Your task to perform on an android device: Do I have any events this weekend? Image 0: 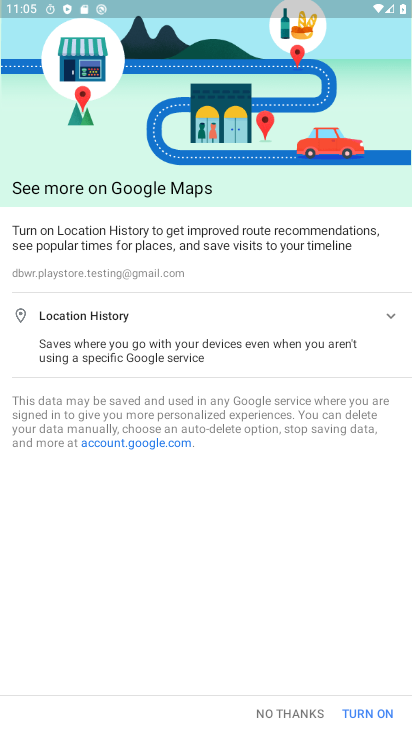
Step 0: press home button
Your task to perform on an android device: Do I have any events this weekend? Image 1: 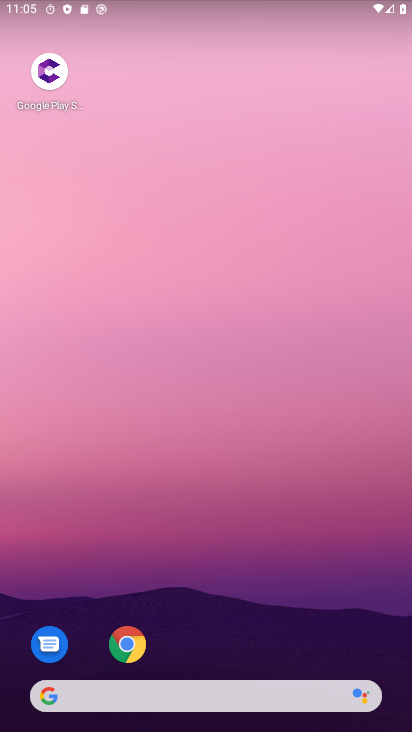
Step 1: drag from (91, 731) to (134, 77)
Your task to perform on an android device: Do I have any events this weekend? Image 2: 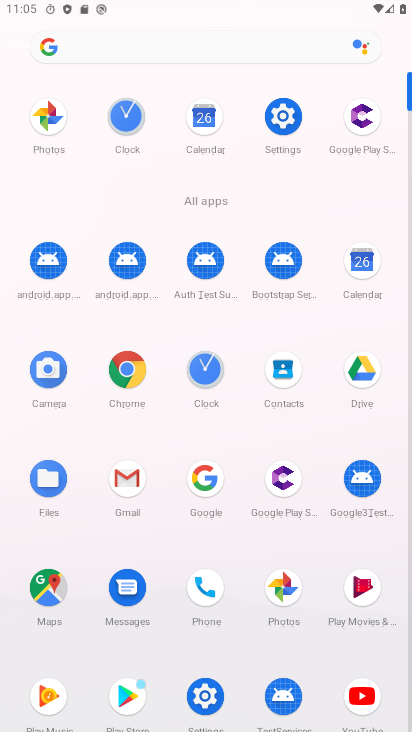
Step 2: click (202, 125)
Your task to perform on an android device: Do I have any events this weekend? Image 3: 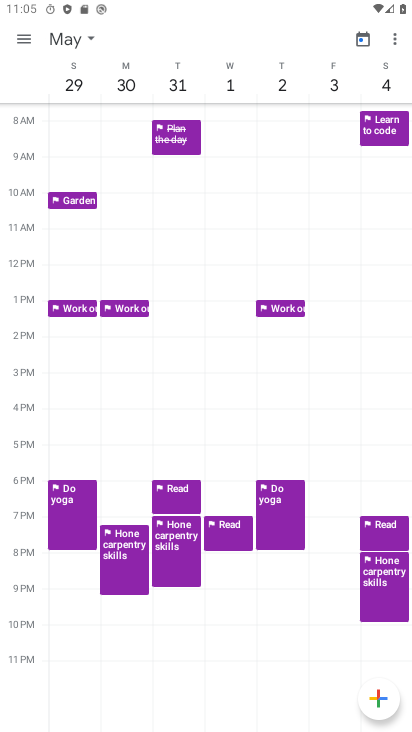
Step 3: drag from (94, 78) to (399, 88)
Your task to perform on an android device: Do I have any events this weekend? Image 4: 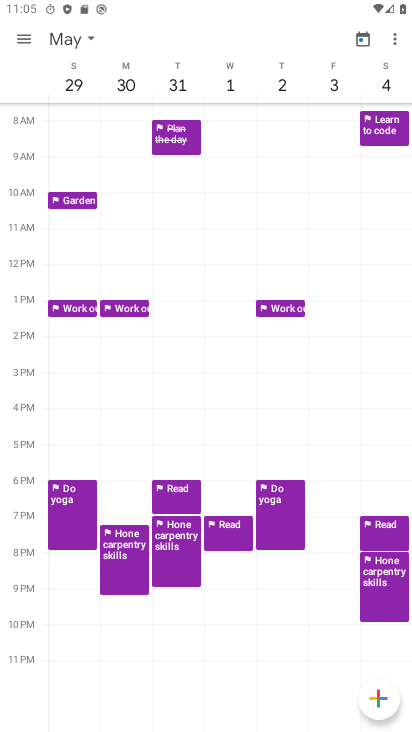
Step 4: drag from (63, 81) to (393, 84)
Your task to perform on an android device: Do I have any events this weekend? Image 5: 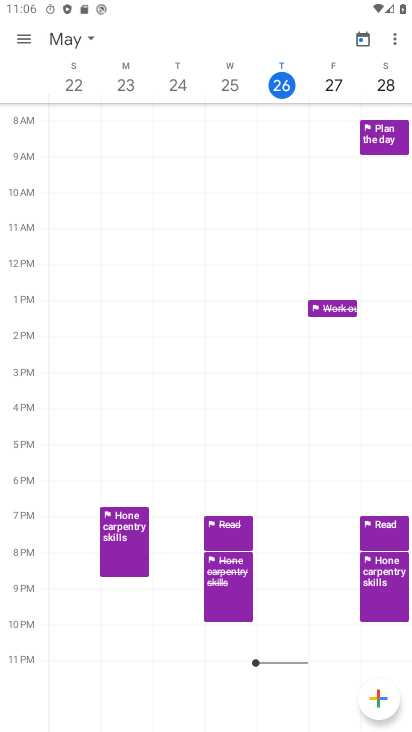
Step 5: click (382, 89)
Your task to perform on an android device: Do I have any events this weekend? Image 6: 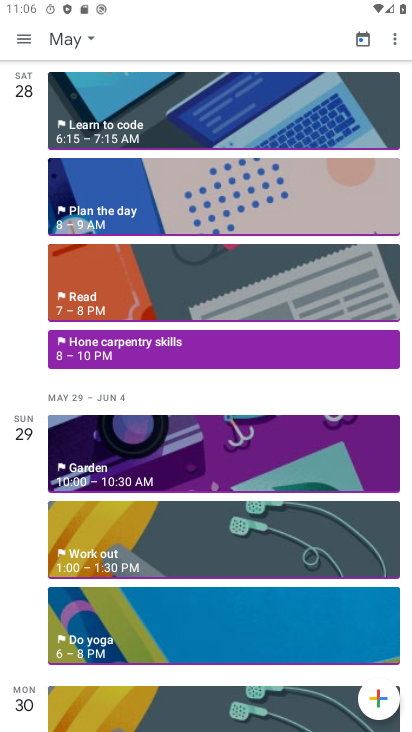
Step 6: click (158, 354)
Your task to perform on an android device: Do I have any events this weekend? Image 7: 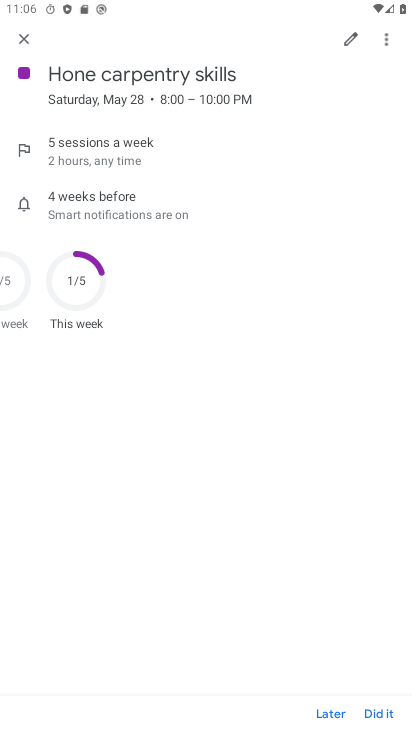
Step 7: task complete